Your task to perform on an android device: change the clock display to show seconds Image 0: 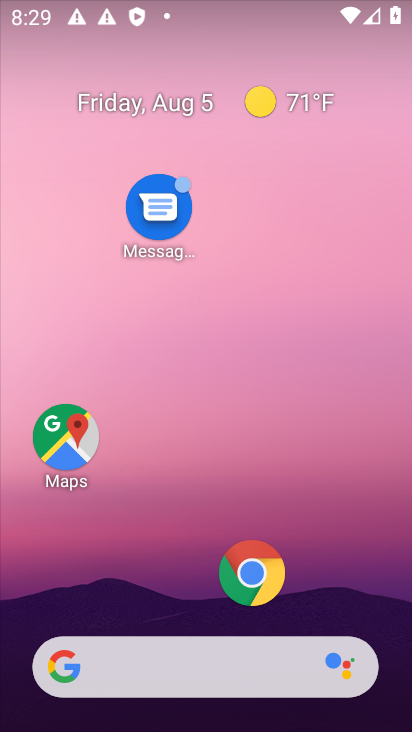
Step 0: drag from (197, 611) to (218, 64)
Your task to perform on an android device: change the clock display to show seconds Image 1: 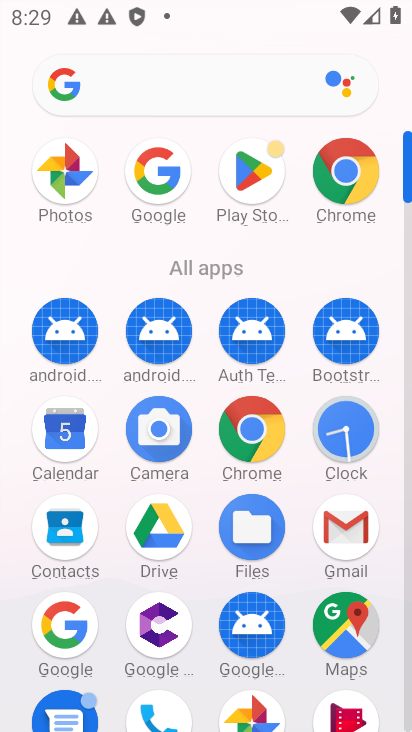
Step 1: click (339, 419)
Your task to perform on an android device: change the clock display to show seconds Image 2: 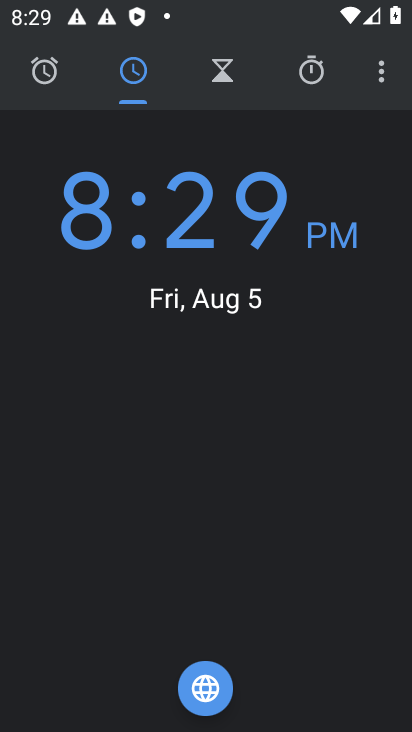
Step 2: click (382, 67)
Your task to perform on an android device: change the clock display to show seconds Image 3: 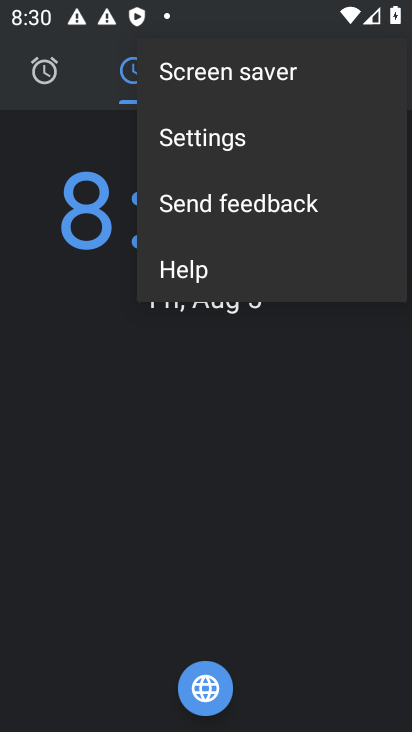
Step 3: click (265, 138)
Your task to perform on an android device: change the clock display to show seconds Image 4: 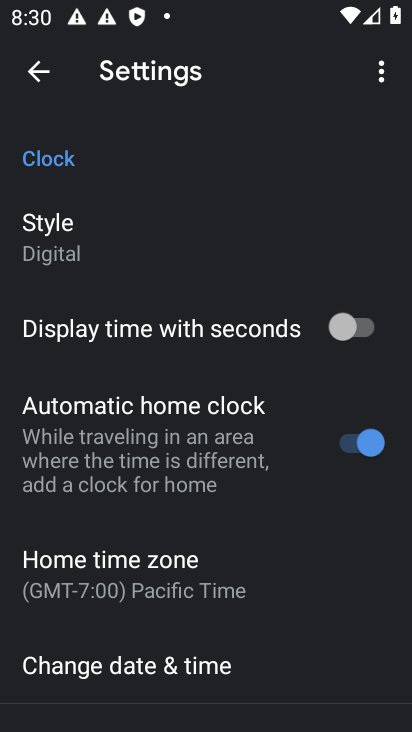
Step 4: click (342, 325)
Your task to perform on an android device: change the clock display to show seconds Image 5: 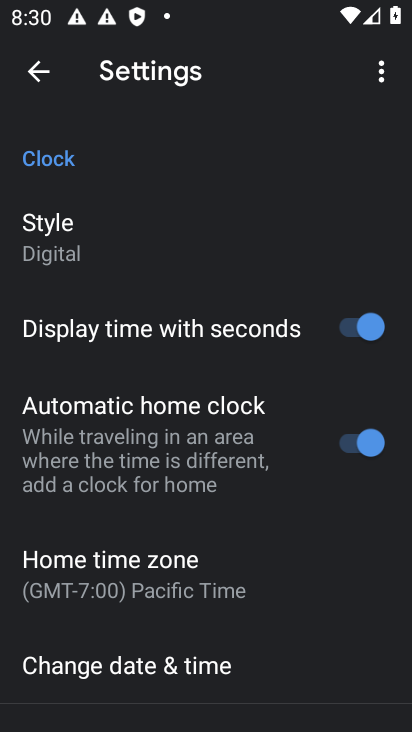
Step 5: task complete